Your task to perform on an android device: Open Chrome and go to the settings page Image 0: 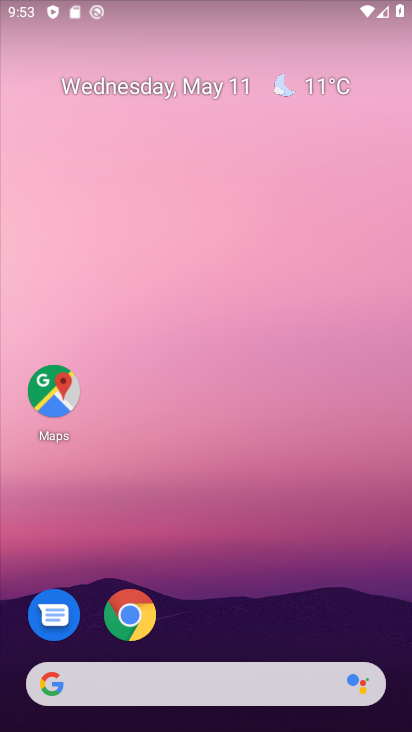
Step 0: click (286, 708)
Your task to perform on an android device: Open Chrome and go to the settings page Image 1: 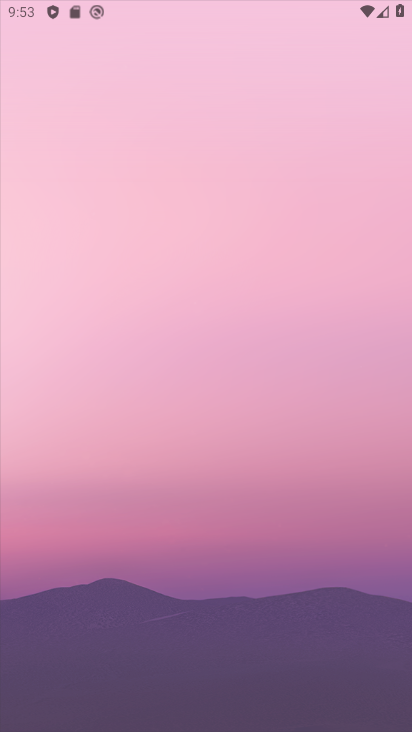
Step 1: drag from (260, 551) to (256, 31)
Your task to perform on an android device: Open Chrome and go to the settings page Image 2: 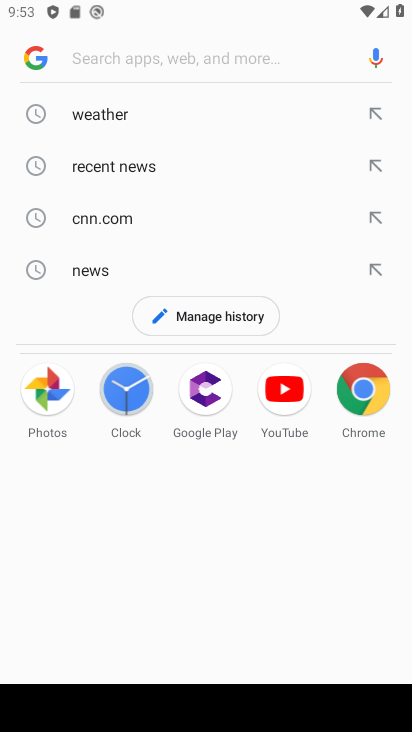
Step 2: press home button
Your task to perform on an android device: Open Chrome and go to the settings page Image 3: 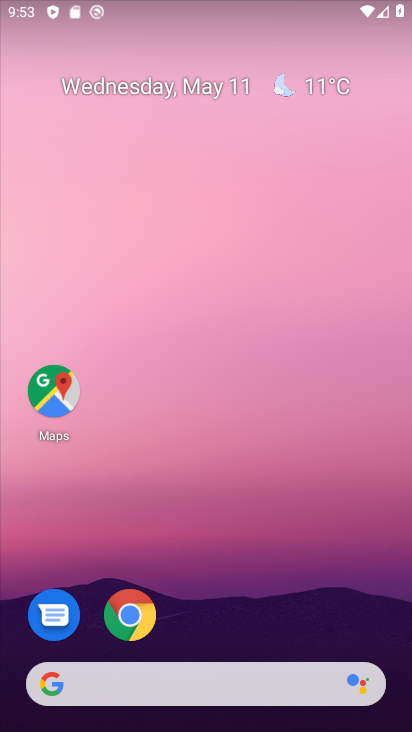
Step 3: drag from (286, 579) to (129, 64)
Your task to perform on an android device: Open Chrome and go to the settings page Image 4: 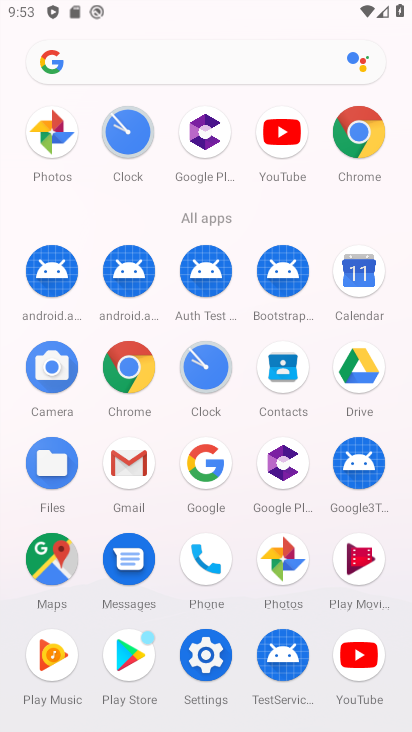
Step 4: click (356, 120)
Your task to perform on an android device: Open Chrome and go to the settings page Image 5: 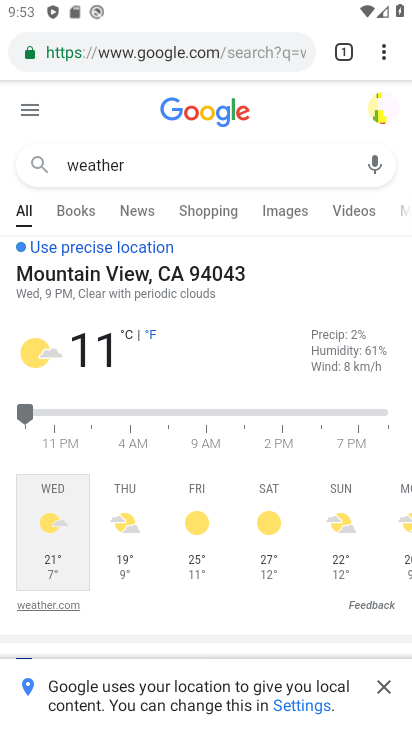
Step 5: task complete